Your task to perform on an android device: check battery use Image 0: 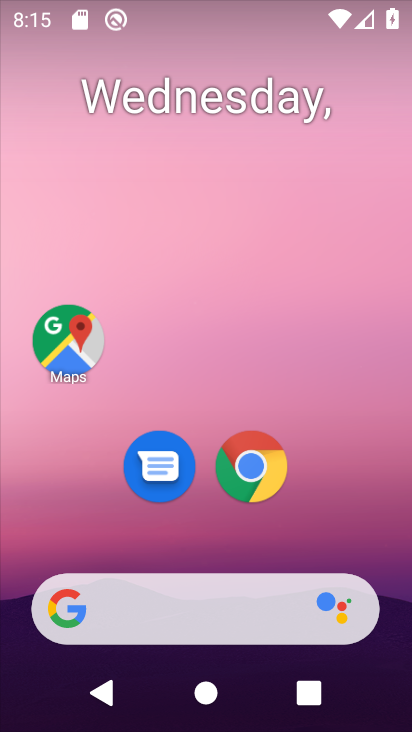
Step 0: drag from (237, 707) to (216, 126)
Your task to perform on an android device: check battery use Image 1: 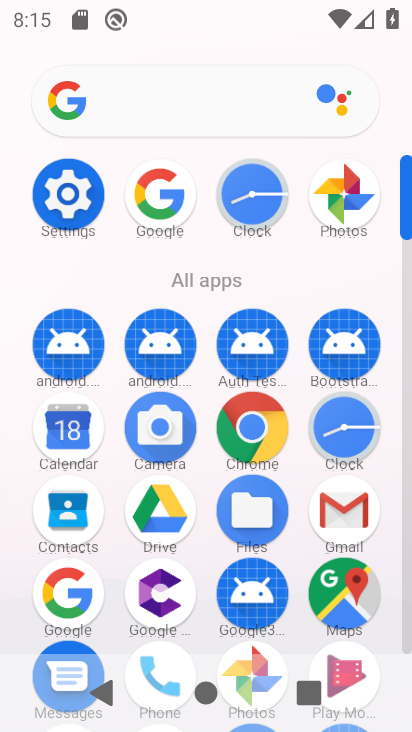
Step 1: click (46, 199)
Your task to perform on an android device: check battery use Image 2: 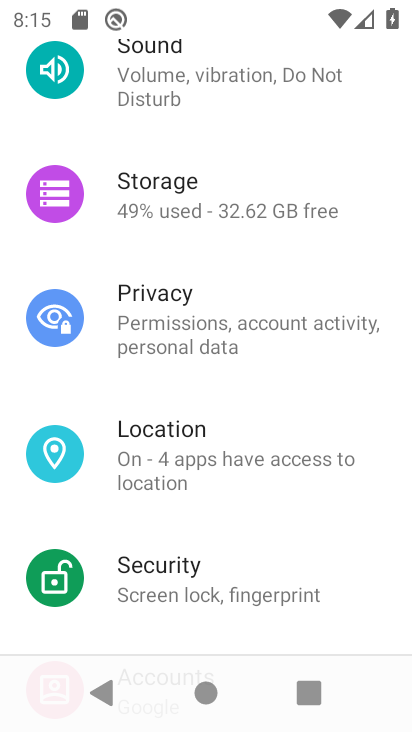
Step 2: drag from (193, 233) to (191, 538)
Your task to perform on an android device: check battery use Image 3: 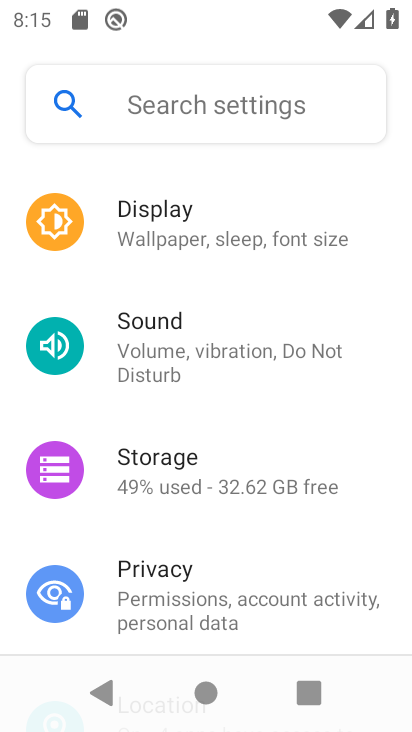
Step 3: drag from (152, 129) to (148, 504)
Your task to perform on an android device: check battery use Image 4: 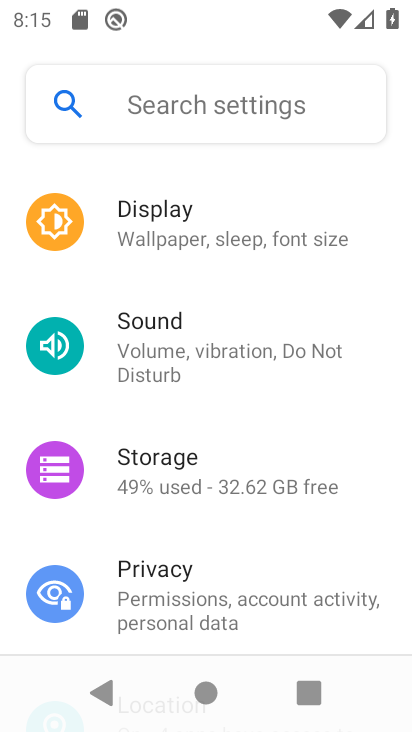
Step 4: drag from (170, 510) to (171, 262)
Your task to perform on an android device: check battery use Image 5: 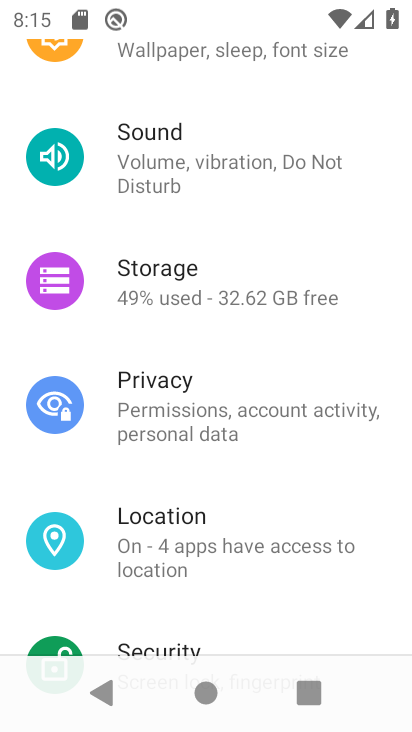
Step 5: drag from (210, 507) to (197, 222)
Your task to perform on an android device: check battery use Image 6: 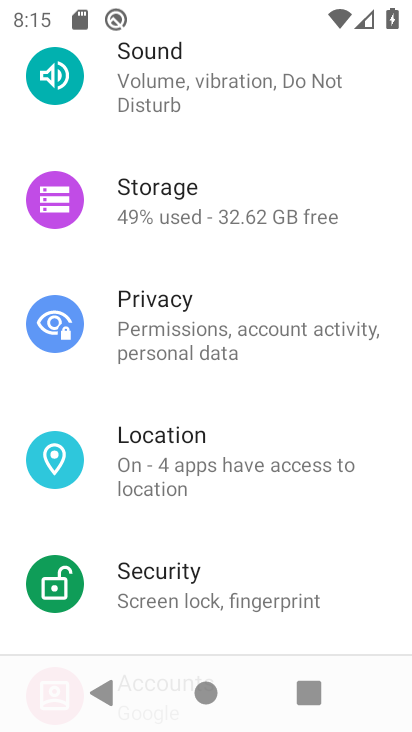
Step 6: drag from (144, 548) to (148, 220)
Your task to perform on an android device: check battery use Image 7: 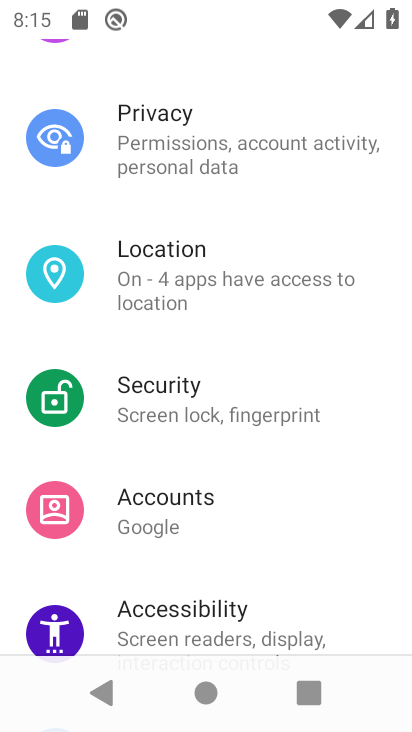
Step 7: drag from (213, 544) to (214, 372)
Your task to perform on an android device: check battery use Image 8: 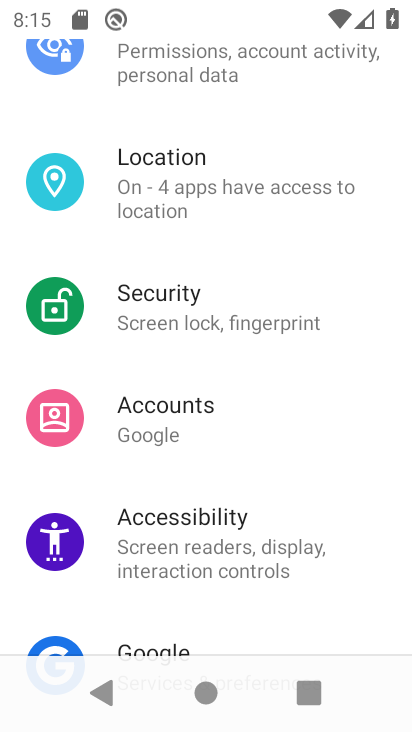
Step 8: drag from (188, 572) to (188, 178)
Your task to perform on an android device: check battery use Image 9: 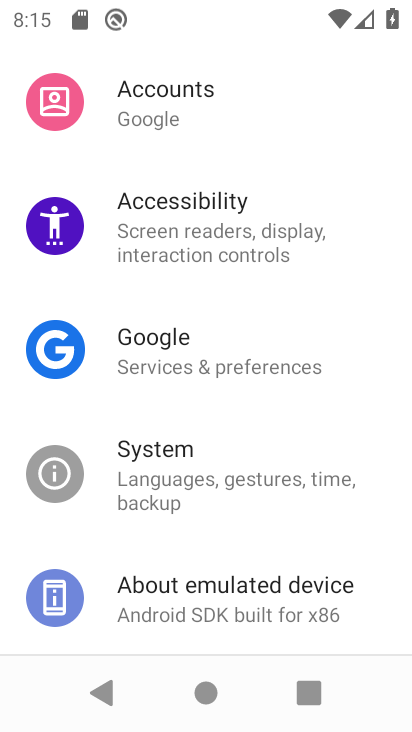
Step 9: drag from (201, 159) to (203, 541)
Your task to perform on an android device: check battery use Image 10: 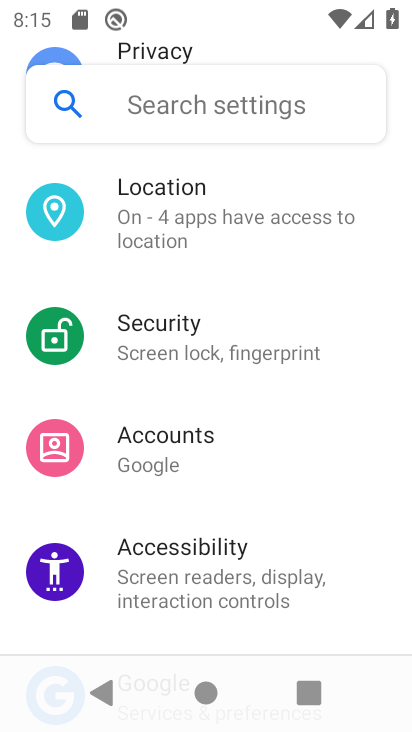
Step 10: drag from (229, 203) to (231, 478)
Your task to perform on an android device: check battery use Image 11: 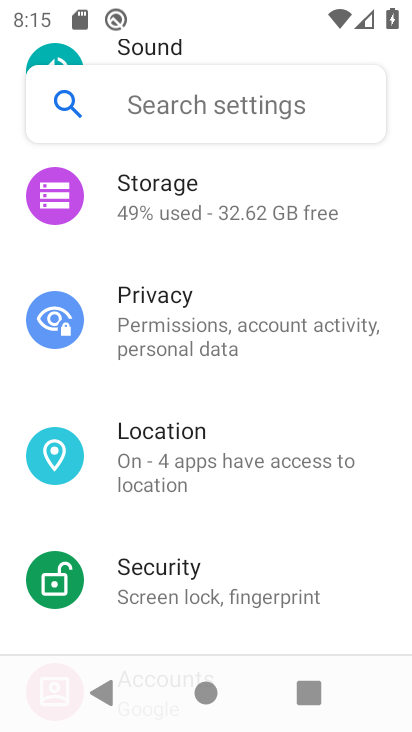
Step 11: drag from (202, 205) to (200, 518)
Your task to perform on an android device: check battery use Image 12: 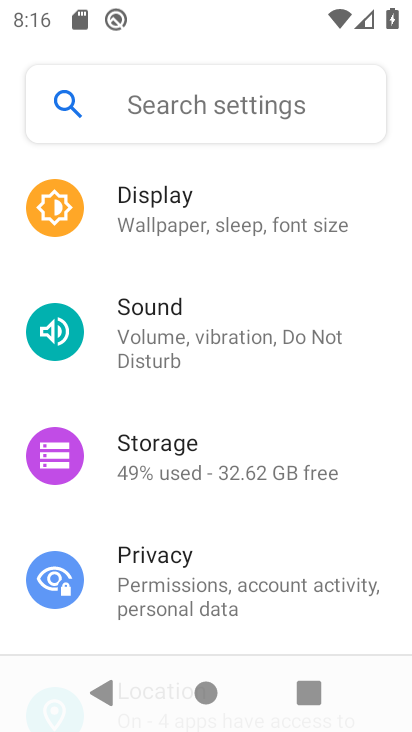
Step 12: drag from (182, 217) to (179, 546)
Your task to perform on an android device: check battery use Image 13: 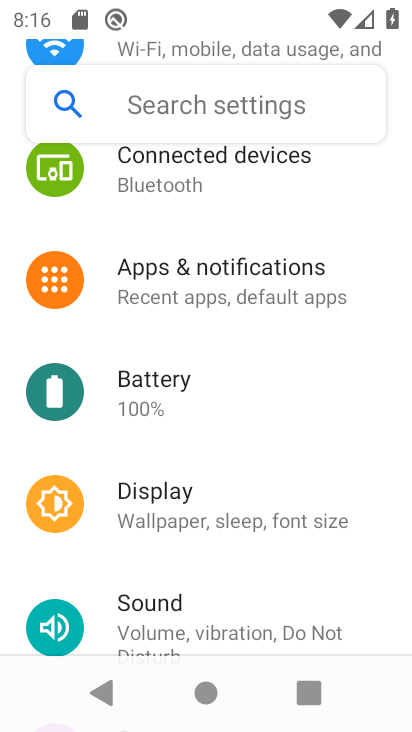
Step 13: click (147, 374)
Your task to perform on an android device: check battery use Image 14: 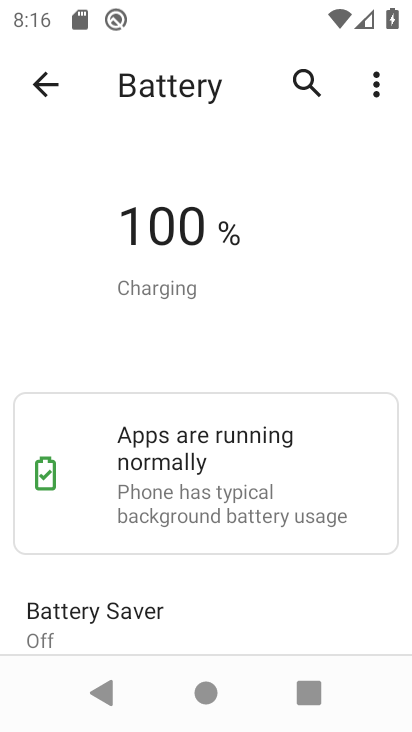
Step 14: click (375, 88)
Your task to perform on an android device: check battery use Image 15: 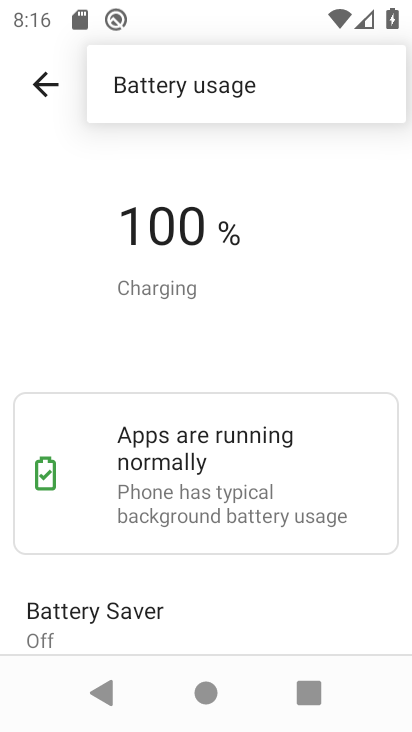
Step 15: click (218, 90)
Your task to perform on an android device: check battery use Image 16: 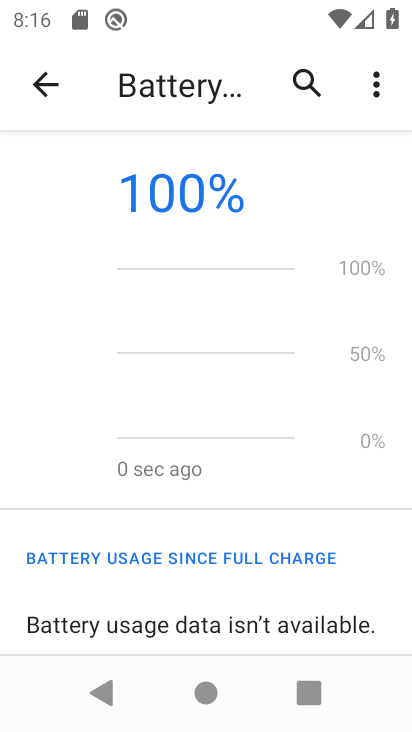
Step 16: task complete